Your task to perform on an android device: Search for razer nari on walmart.com, select the first entry, add it to the cart, then select checkout. Image 0: 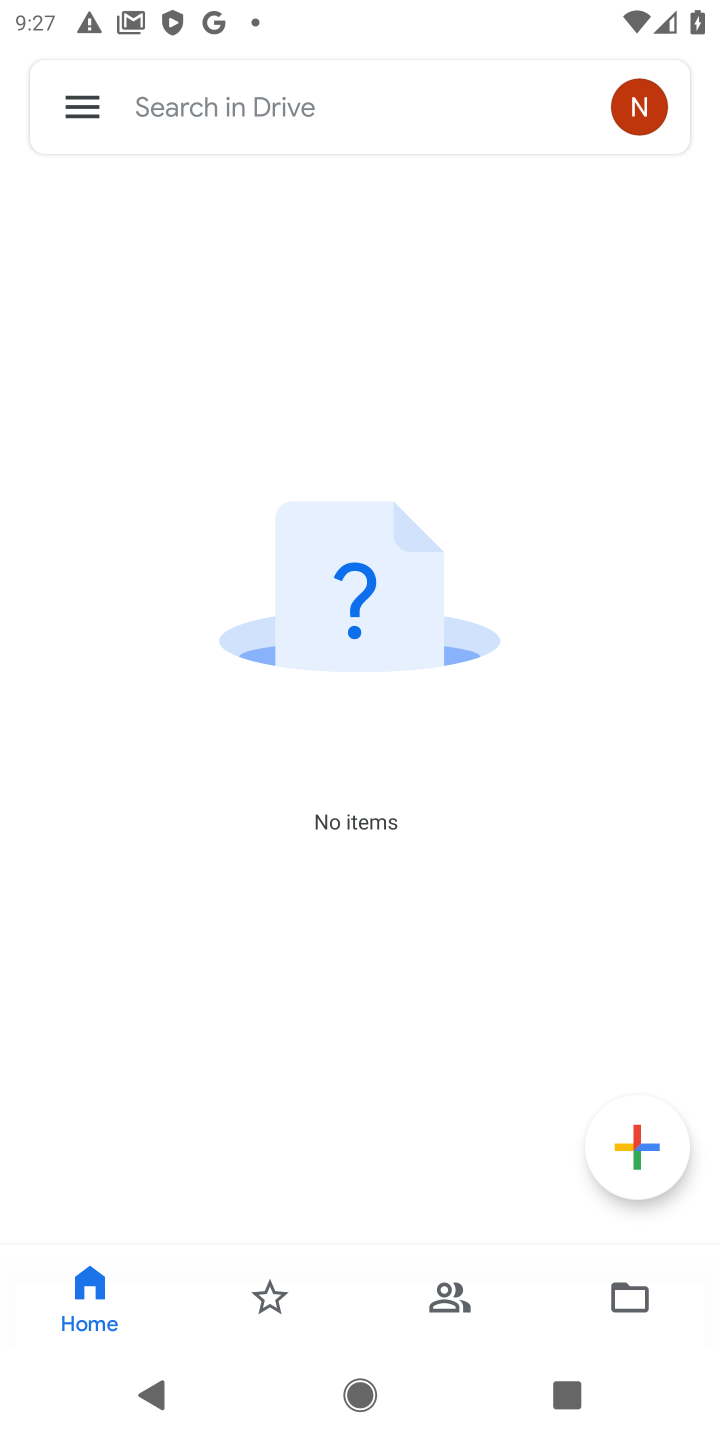
Step 0: press home button
Your task to perform on an android device: Search for razer nari on walmart.com, select the first entry, add it to the cart, then select checkout. Image 1: 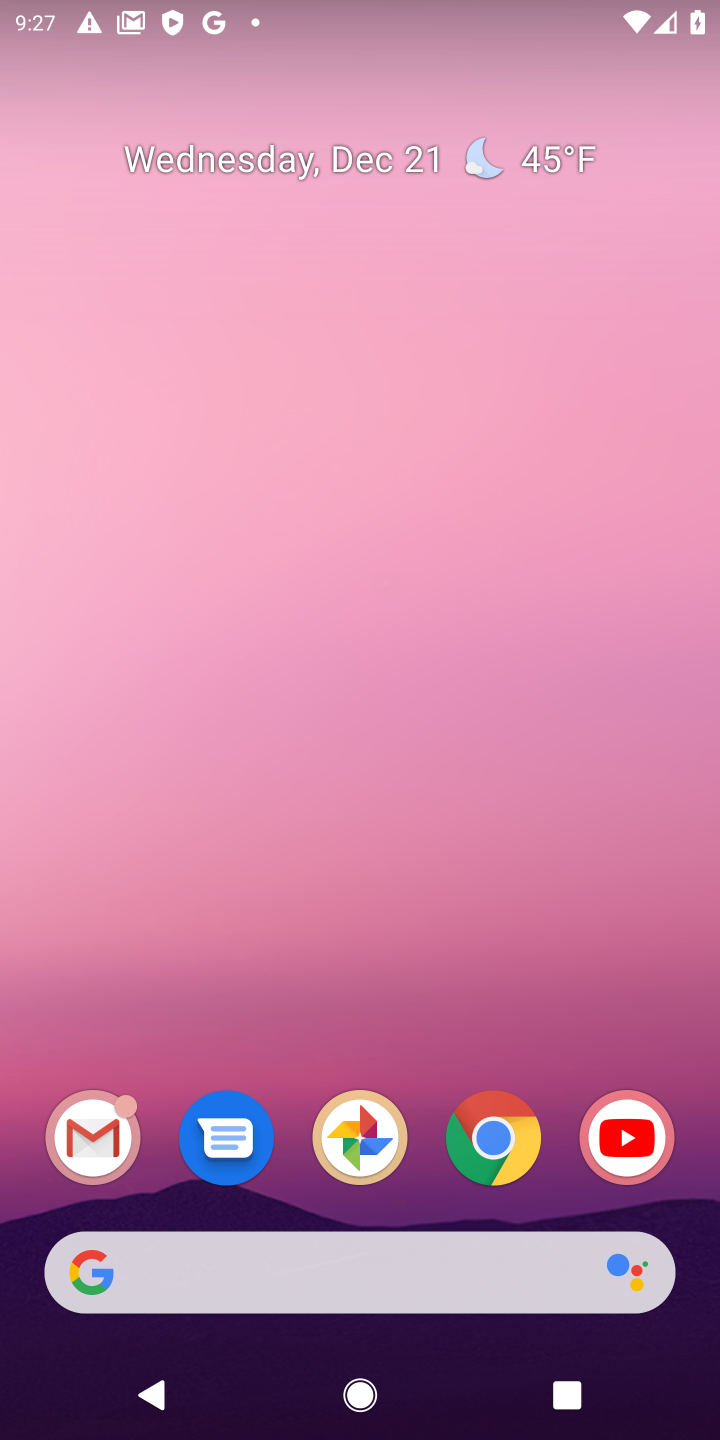
Step 1: click (491, 1155)
Your task to perform on an android device: Search for razer nari on walmart.com, select the first entry, add it to the cart, then select checkout. Image 2: 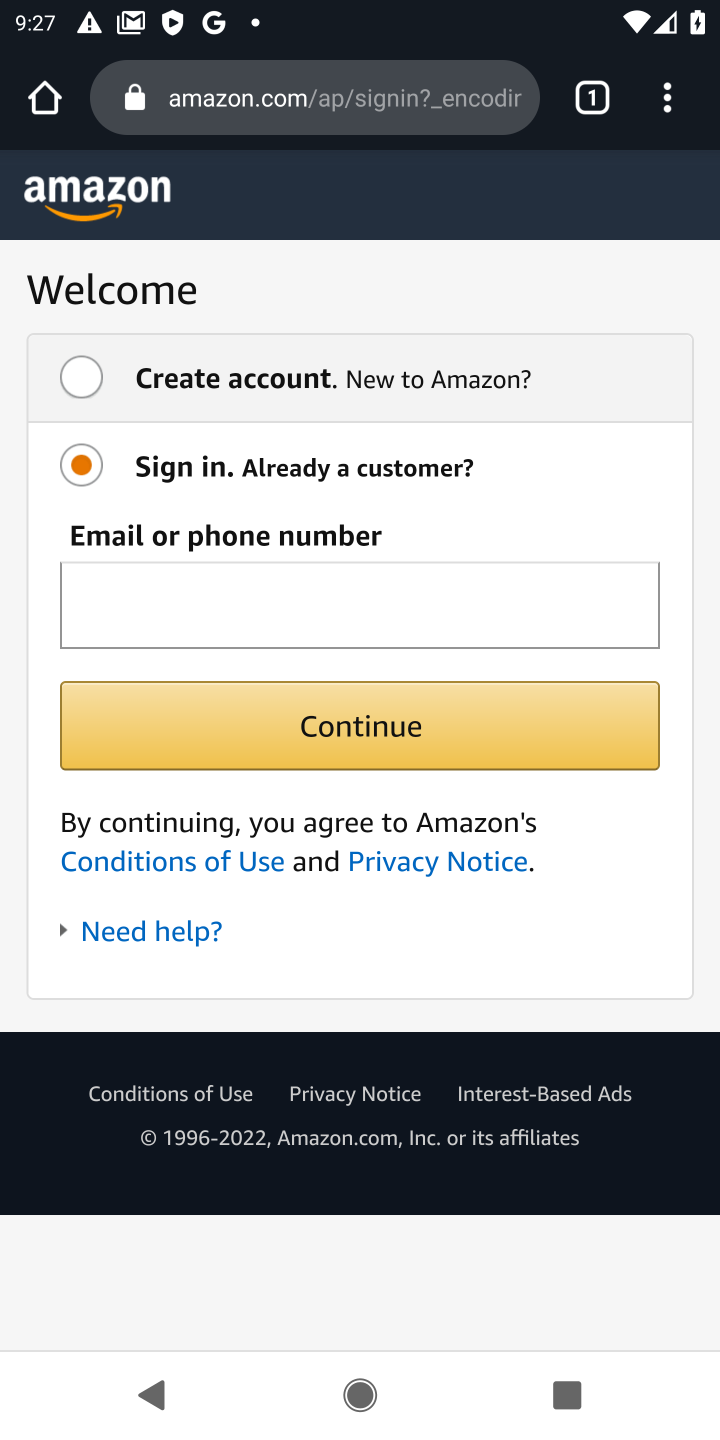
Step 2: click (310, 115)
Your task to perform on an android device: Search for razer nari on walmart.com, select the first entry, add it to the cart, then select checkout. Image 3: 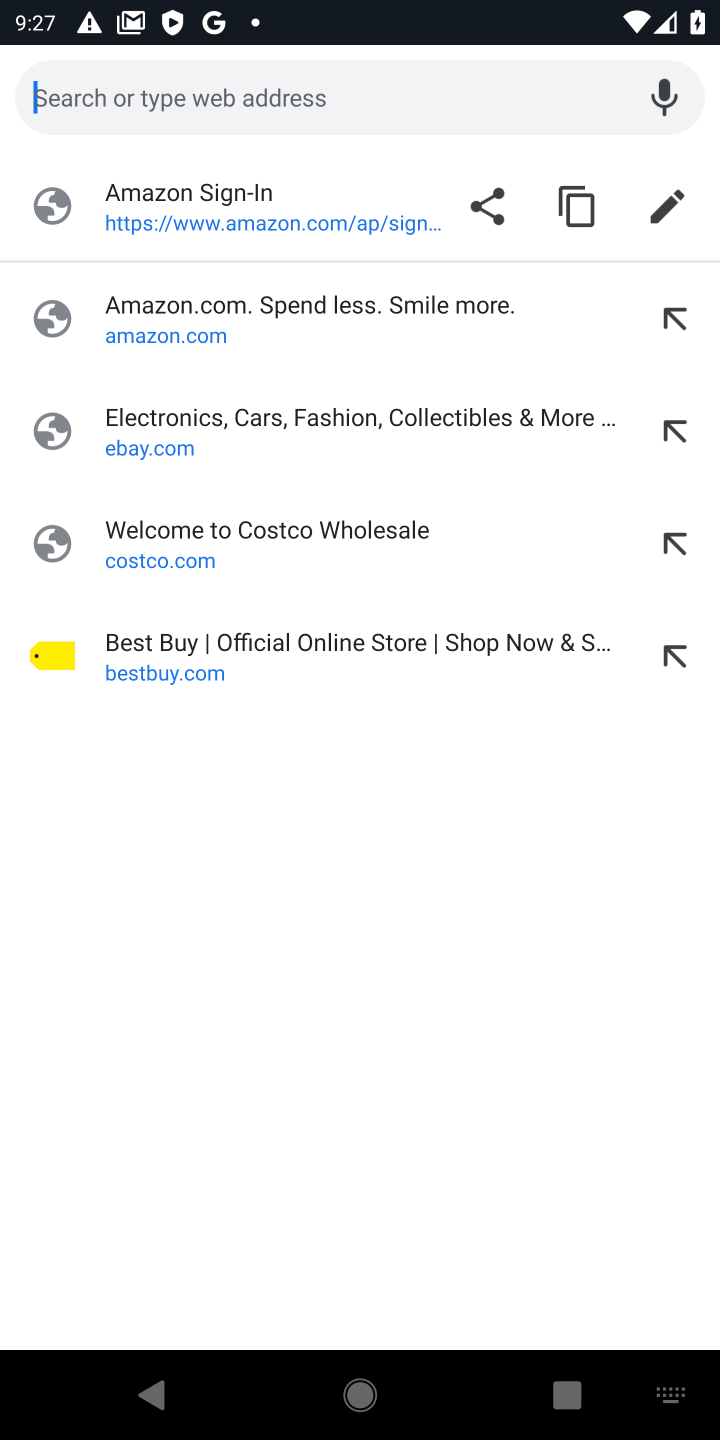
Step 3: type "walmart.com"
Your task to perform on an android device: Search for razer nari on walmart.com, select the first entry, add it to the cart, then select checkout. Image 4: 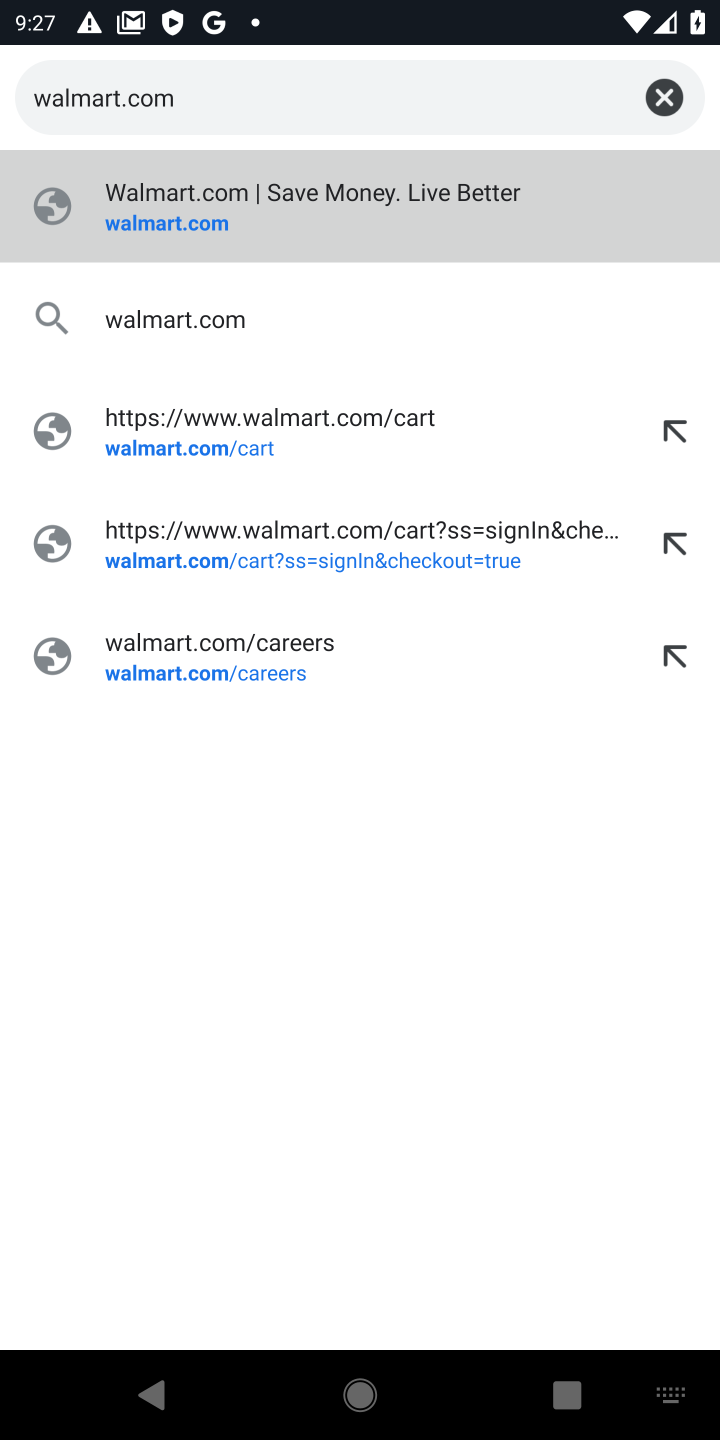
Step 4: click (148, 227)
Your task to perform on an android device: Search for razer nari on walmart.com, select the first entry, add it to the cart, then select checkout. Image 5: 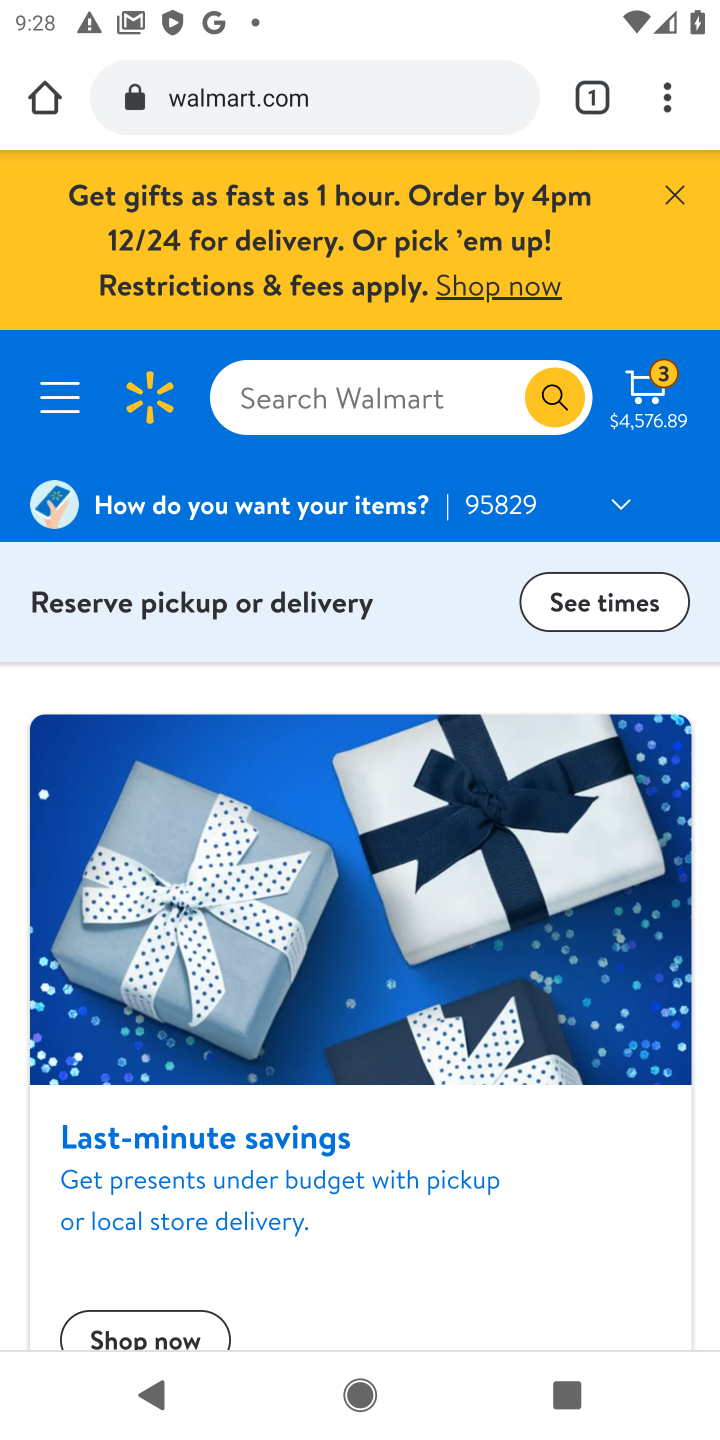
Step 5: click (295, 411)
Your task to perform on an android device: Search for razer nari on walmart.com, select the first entry, add it to the cart, then select checkout. Image 6: 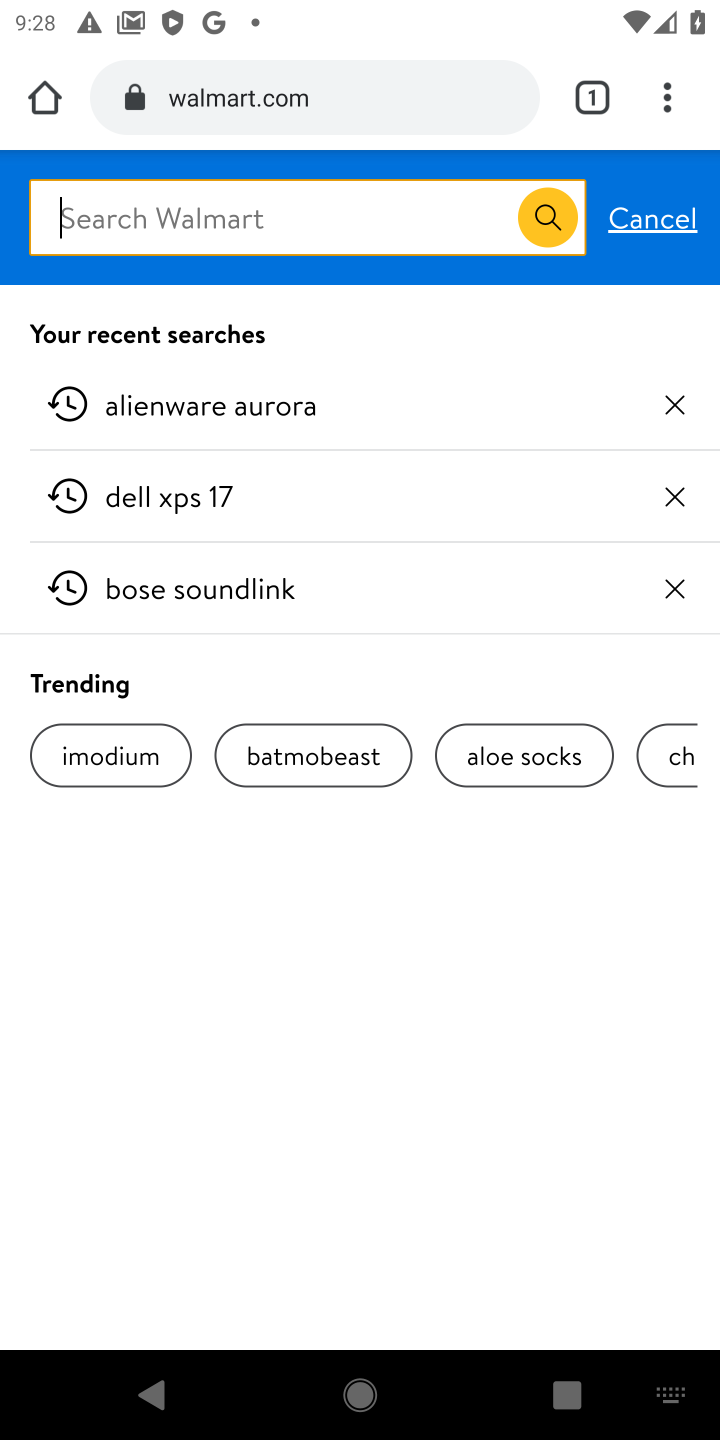
Step 6: type "razer nari"
Your task to perform on an android device: Search for razer nari on walmart.com, select the first entry, add it to the cart, then select checkout. Image 7: 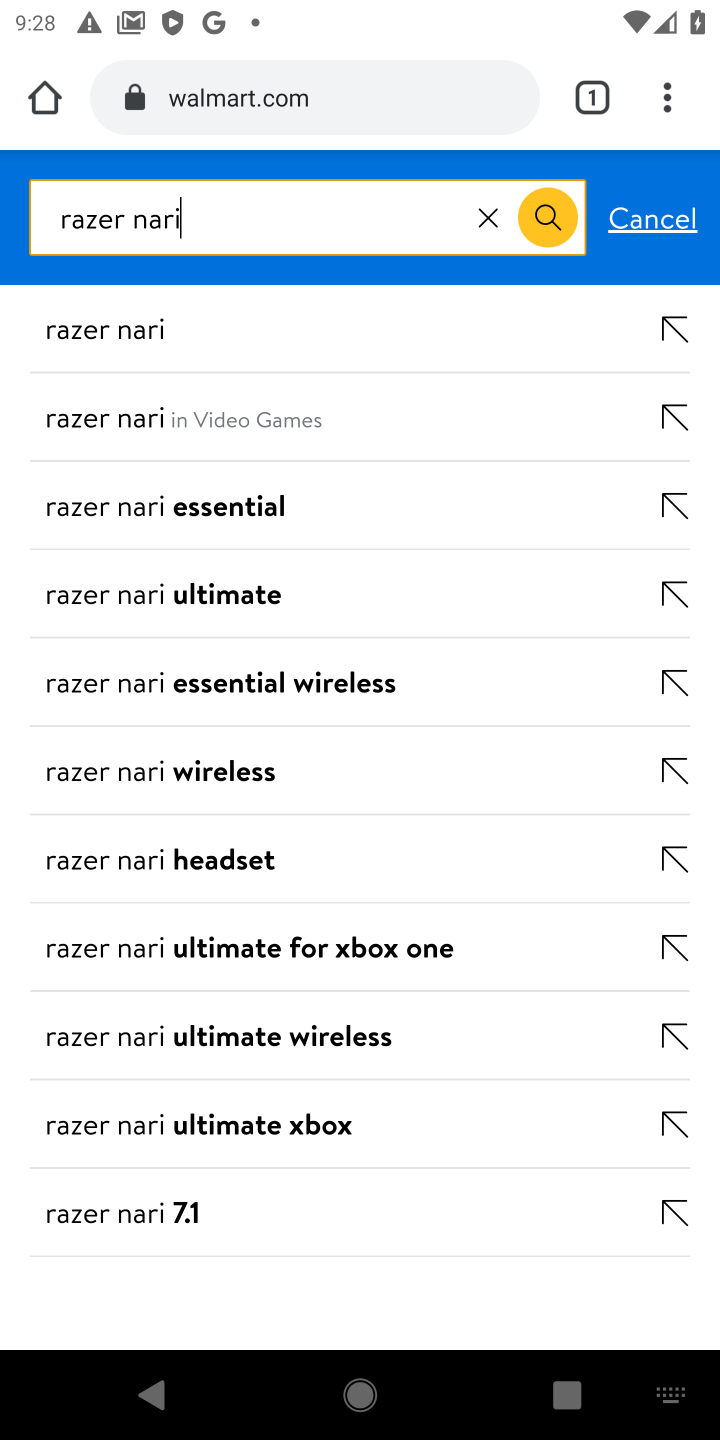
Step 7: click (103, 330)
Your task to perform on an android device: Search for razer nari on walmart.com, select the first entry, add it to the cart, then select checkout. Image 8: 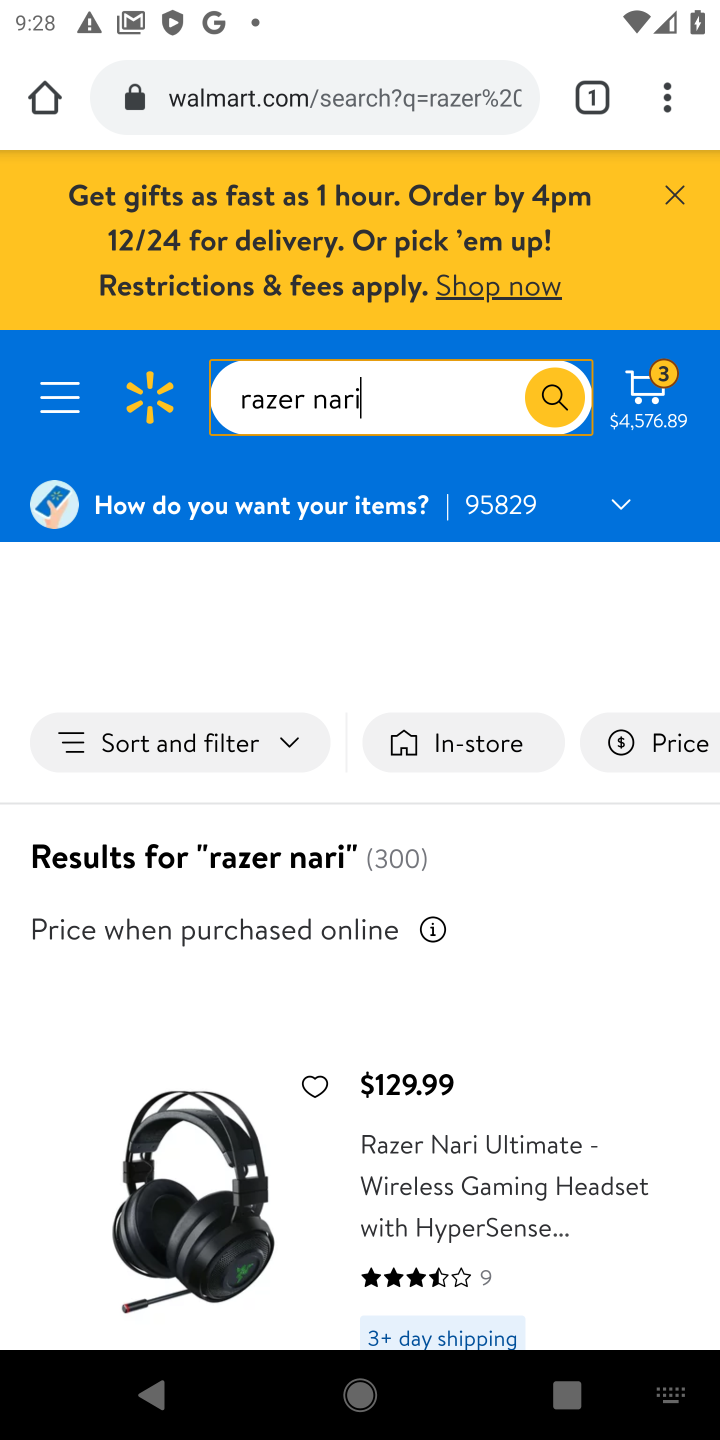
Step 8: drag from (187, 882) to (148, 484)
Your task to perform on an android device: Search for razer nari on walmart.com, select the first entry, add it to the cart, then select checkout. Image 9: 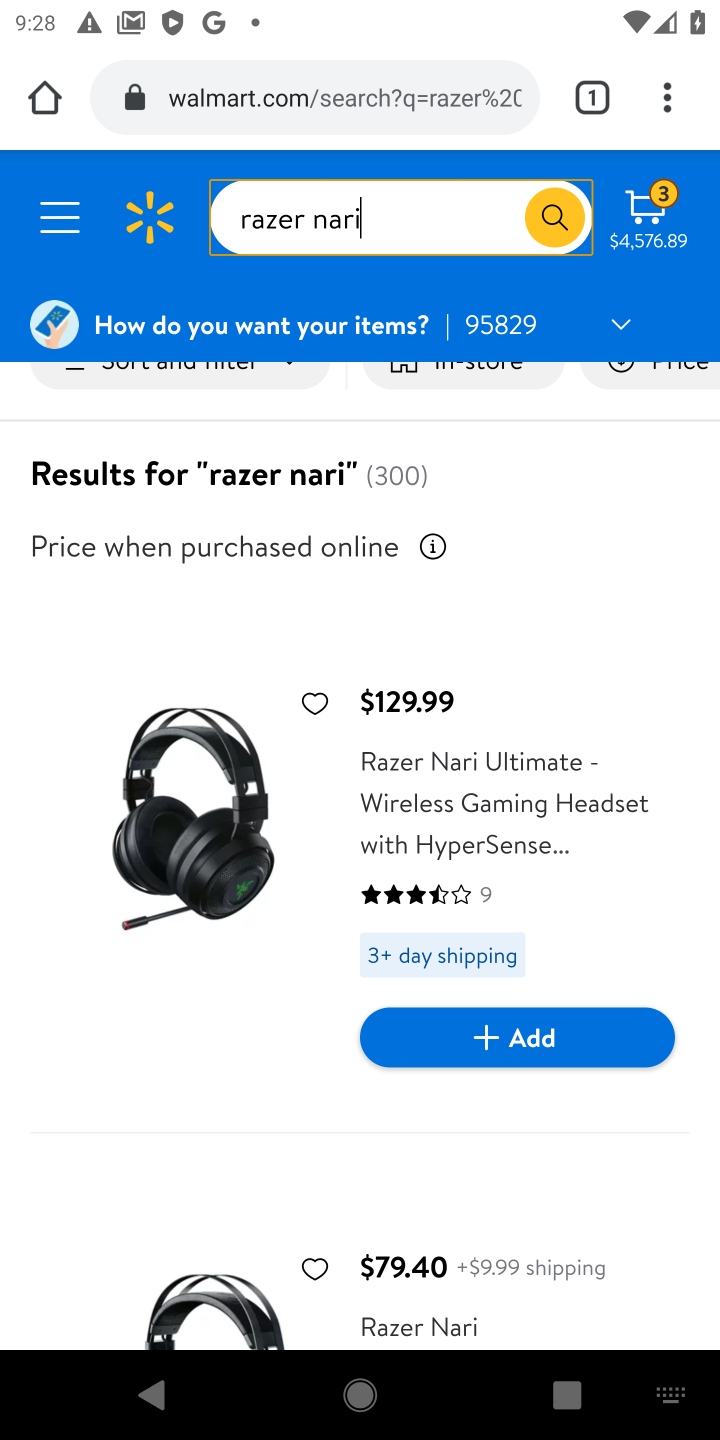
Step 9: click (482, 1048)
Your task to perform on an android device: Search for razer nari on walmart.com, select the first entry, add it to the cart, then select checkout. Image 10: 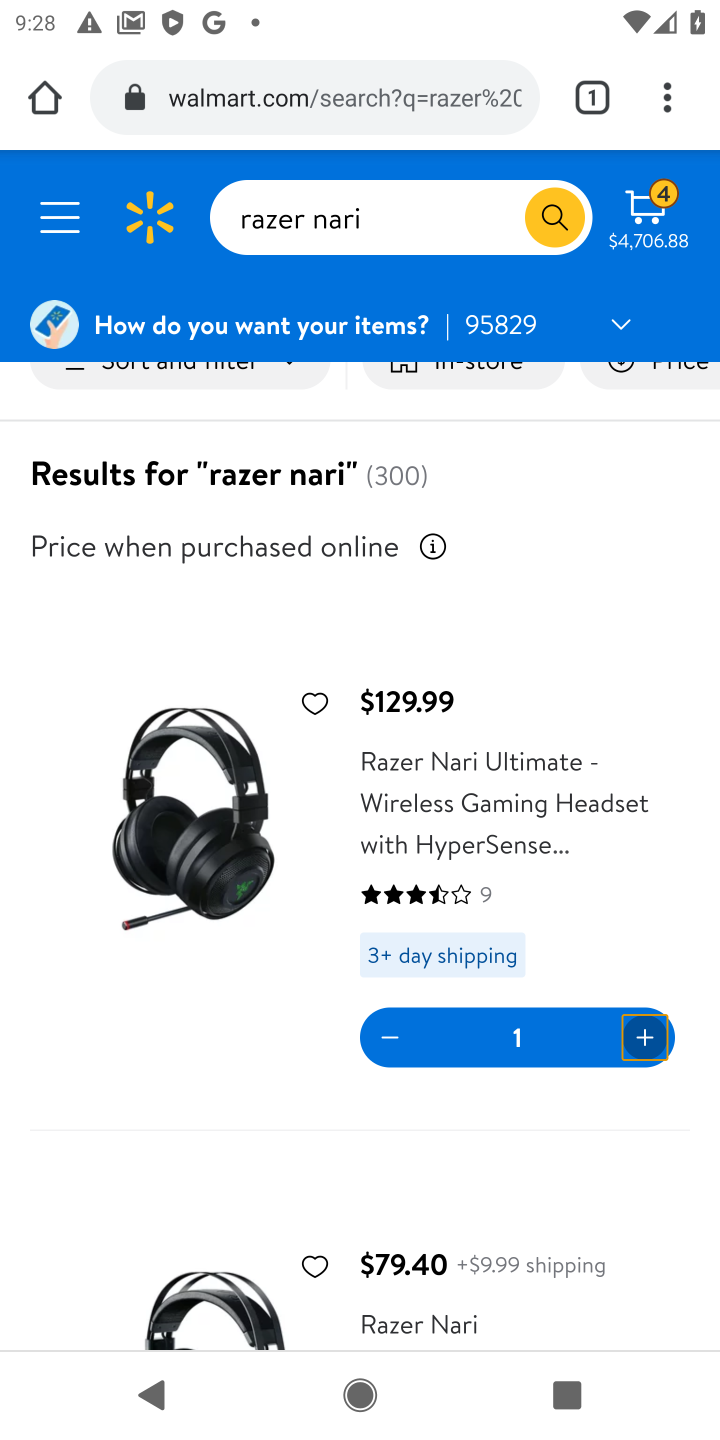
Step 10: click (639, 218)
Your task to perform on an android device: Search for razer nari on walmart.com, select the first entry, add it to the cart, then select checkout. Image 11: 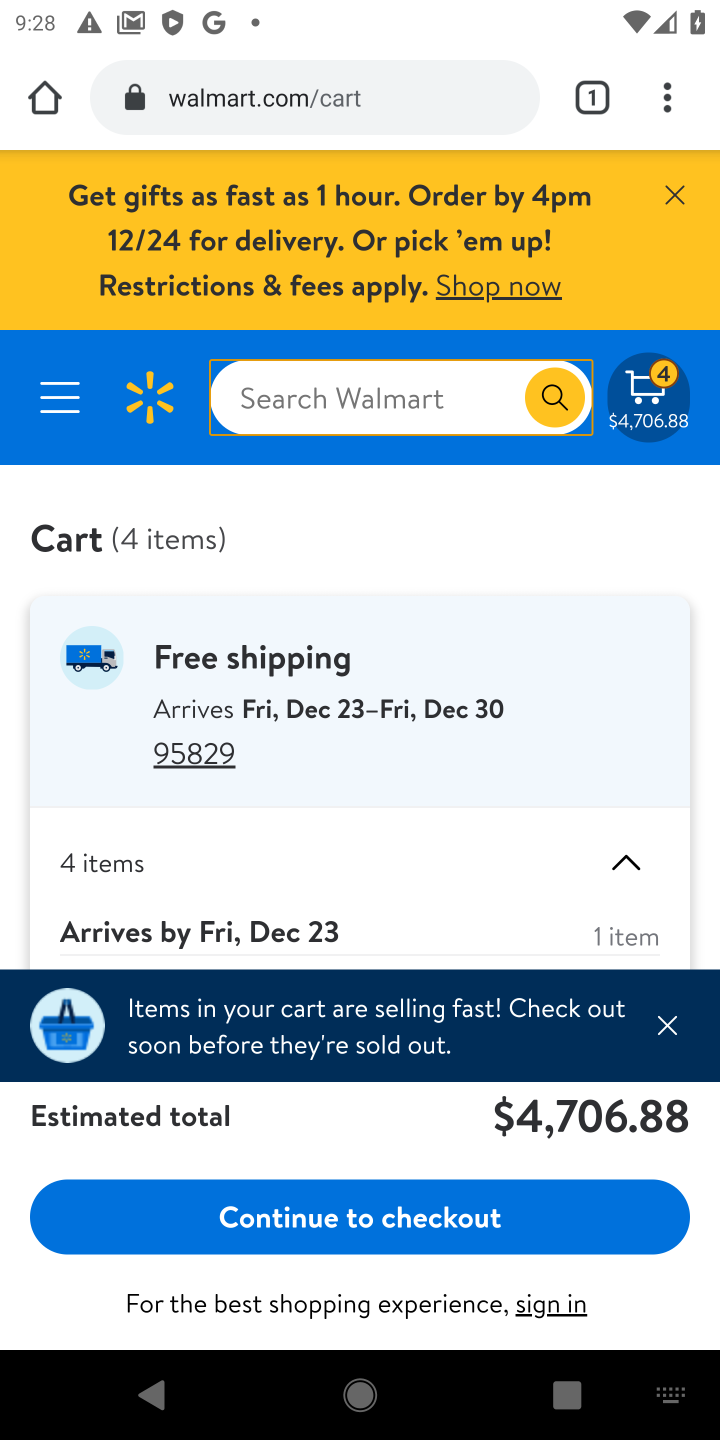
Step 11: click (347, 1232)
Your task to perform on an android device: Search for razer nari on walmart.com, select the first entry, add it to the cart, then select checkout. Image 12: 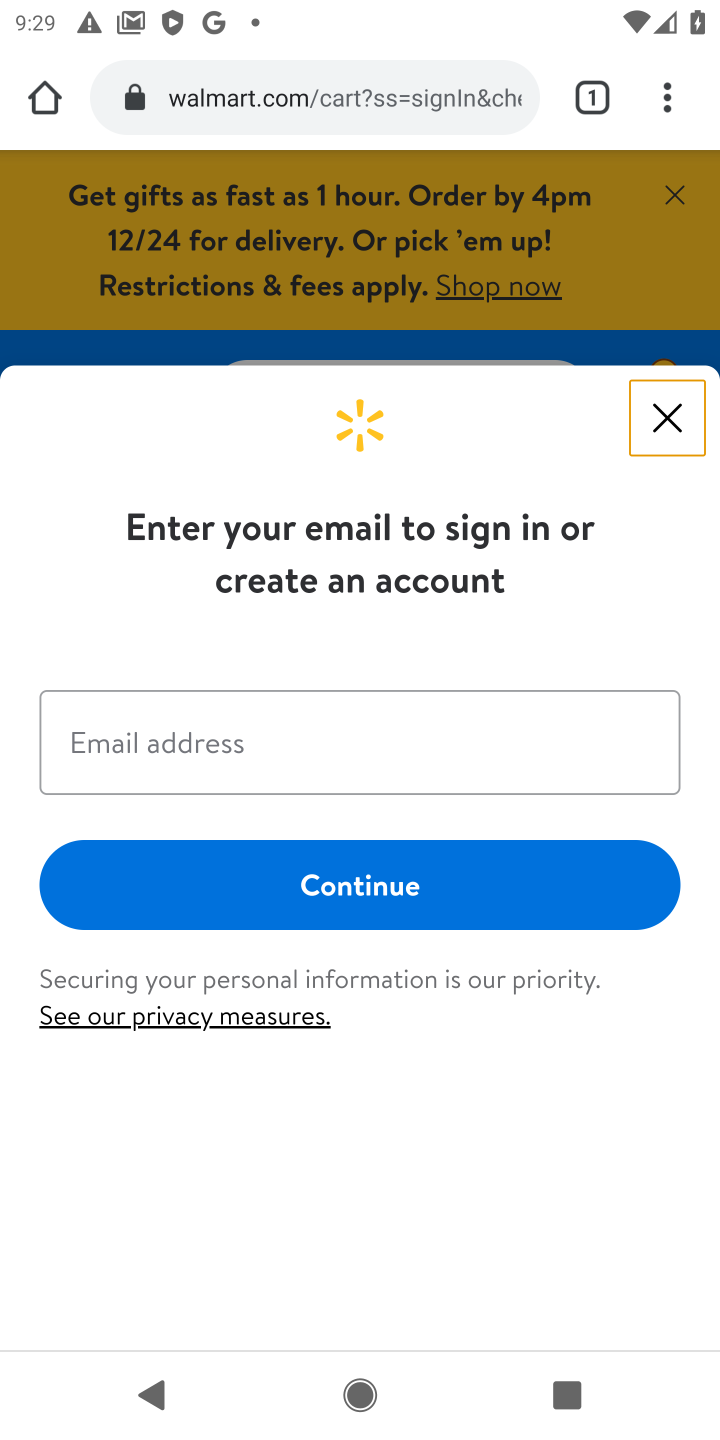
Step 12: task complete